Your task to perform on an android device: open wifi settings Image 0: 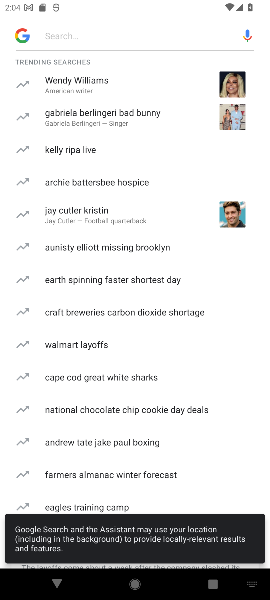
Step 0: press home button
Your task to perform on an android device: open wifi settings Image 1: 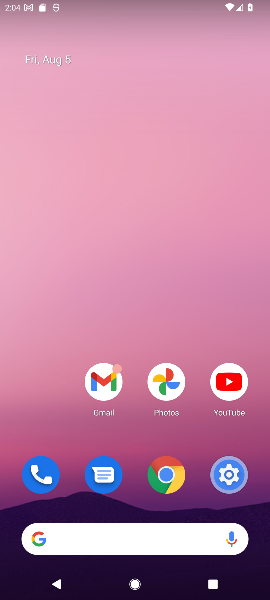
Step 1: click (228, 473)
Your task to perform on an android device: open wifi settings Image 2: 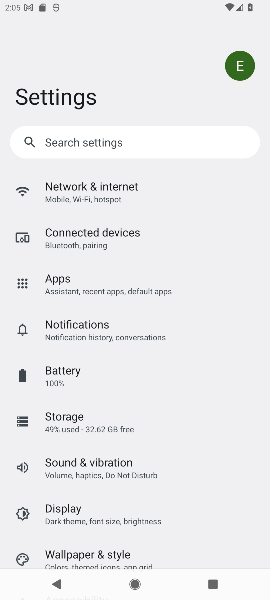
Step 2: click (79, 186)
Your task to perform on an android device: open wifi settings Image 3: 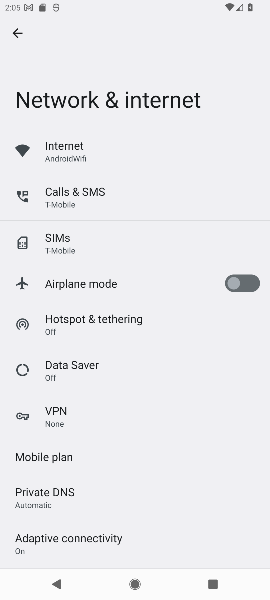
Step 3: click (14, 36)
Your task to perform on an android device: open wifi settings Image 4: 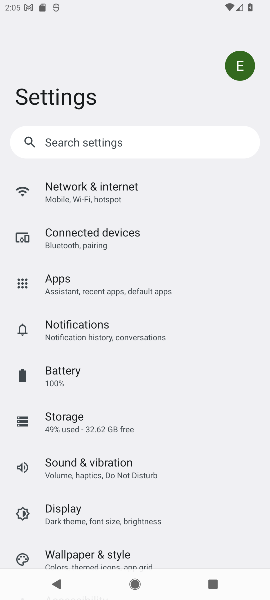
Step 4: drag from (188, 191) to (180, 423)
Your task to perform on an android device: open wifi settings Image 5: 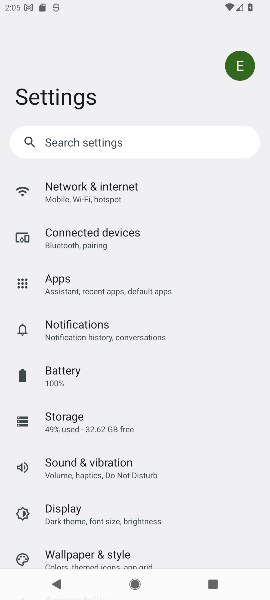
Step 5: click (83, 175)
Your task to perform on an android device: open wifi settings Image 6: 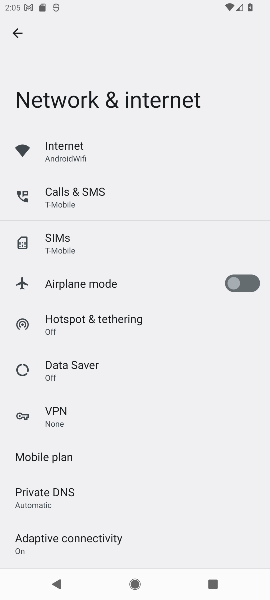
Step 6: task complete